Your task to perform on an android device: toggle notification dots Image 0: 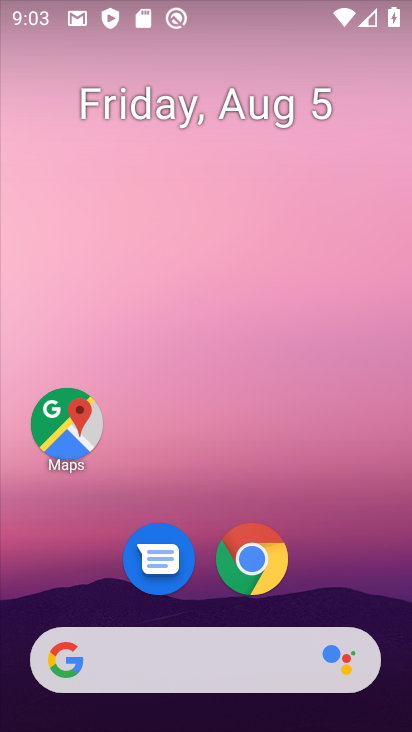
Step 0: drag from (169, 600) to (186, 115)
Your task to perform on an android device: toggle notification dots Image 1: 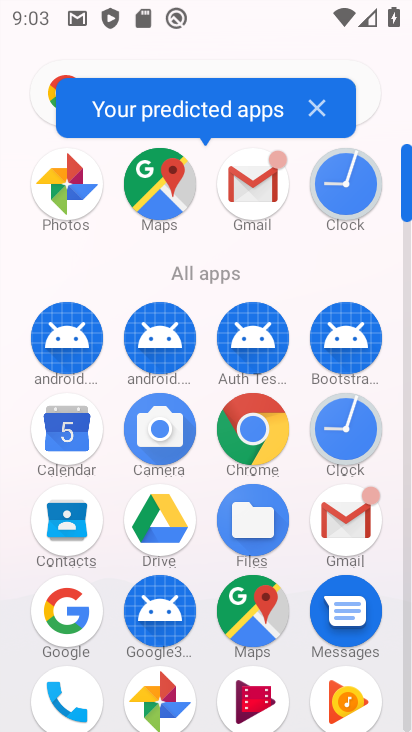
Step 1: drag from (234, 560) to (267, 217)
Your task to perform on an android device: toggle notification dots Image 2: 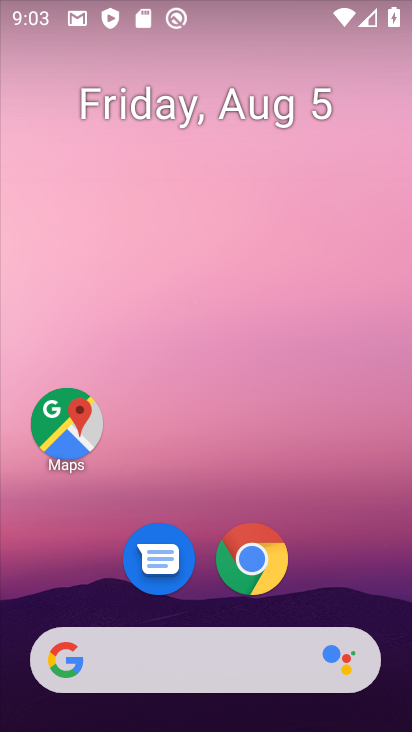
Step 2: drag from (228, 541) to (260, 106)
Your task to perform on an android device: toggle notification dots Image 3: 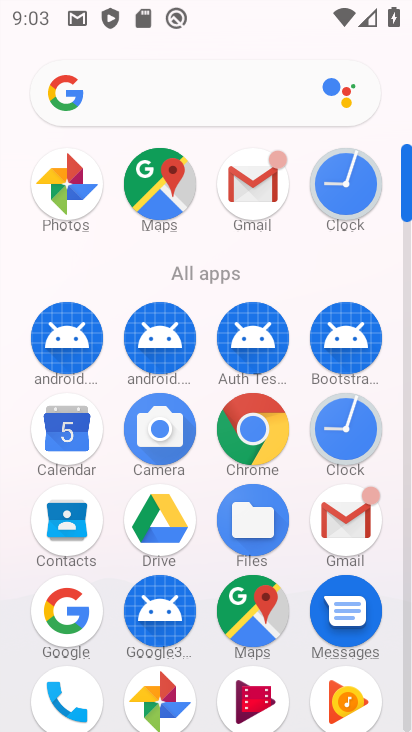
Step 3: drag from (242, 544) to (261, 162)
Your task to perform on an android device: toggle notification dots Image 4: 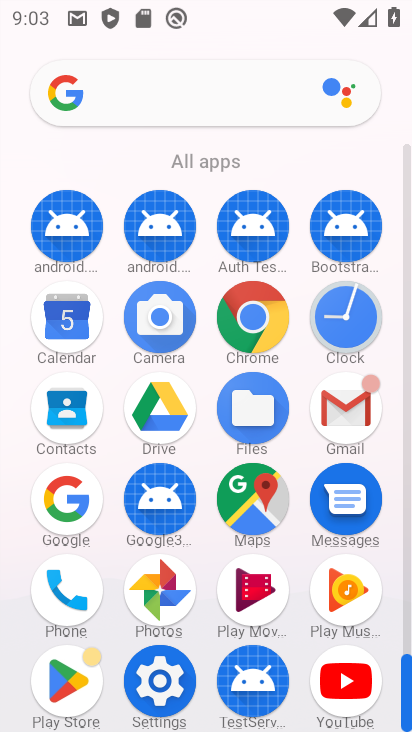
Step 4: click (158, 683)
Your task to perform on an android device: toggle notification dots Image 5: 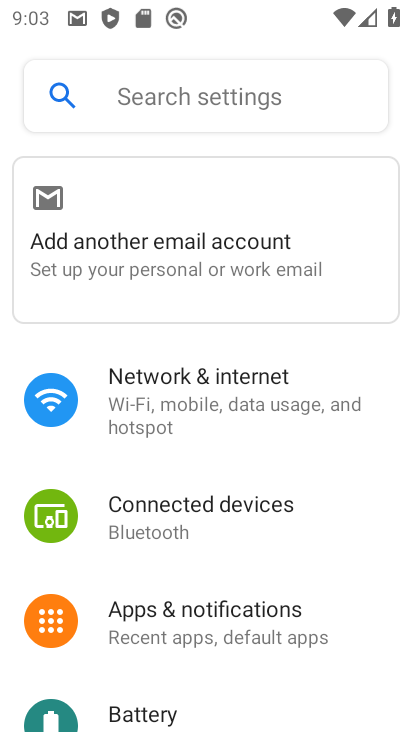
Step 5: click (235, 620)
Your task to perform on an android device: toggle notification dots Image 6: 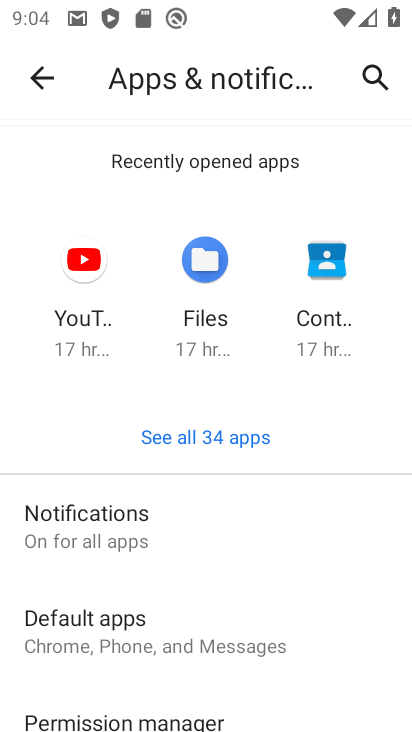
Step 6: click (162, 527)
Your task to perform on an android device: toggle notification dots Image 7: 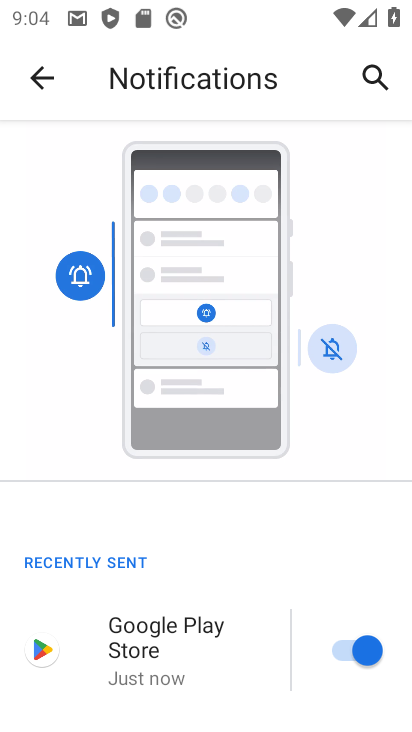
Step 7: drag from (157, 493) to (277, 41)
Your task to perform on an android device: toggle notification dots Image 8: 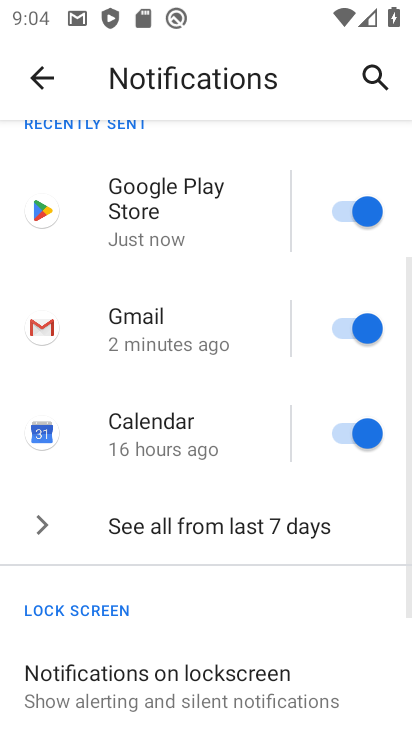
Step 8: drag from (212, 616) to (247, 77)
Your task to perform on an android device: toggle notification dots Image 9: 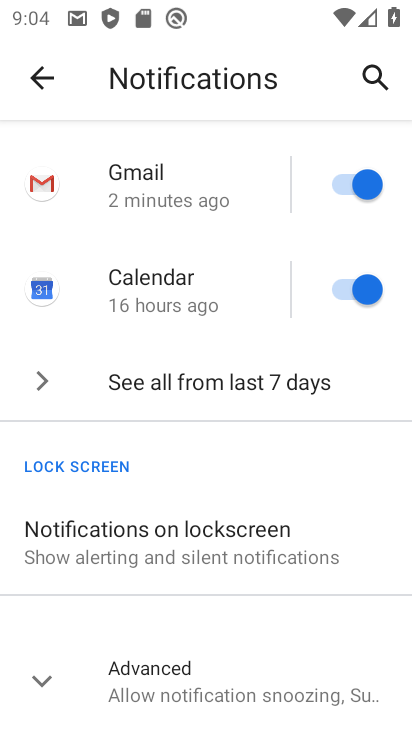
Step 9: click (184, 679)
Your task to perform on an android device: toggle notification dots Image 10: 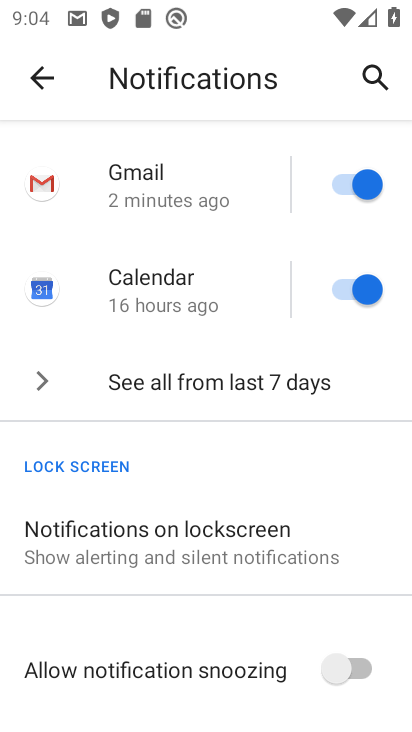
Step 10: drag from (124, 488) to (193, 72)
Your task to perform on an android device: toggle notification dots Image 11: 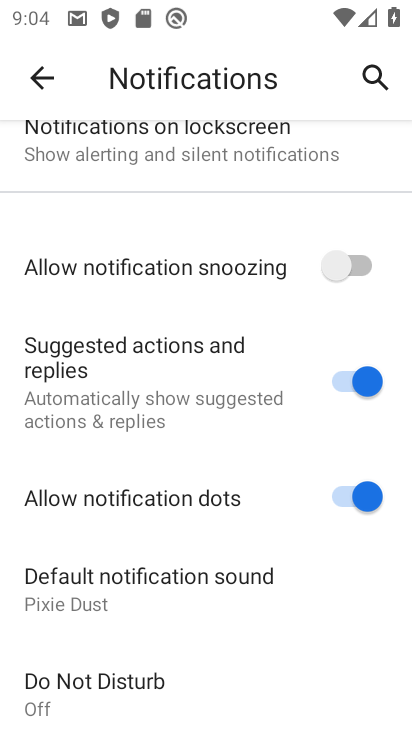
Step 11: click (256, 497)
Your task to perform on an android device: toggle notification dots Image 12: 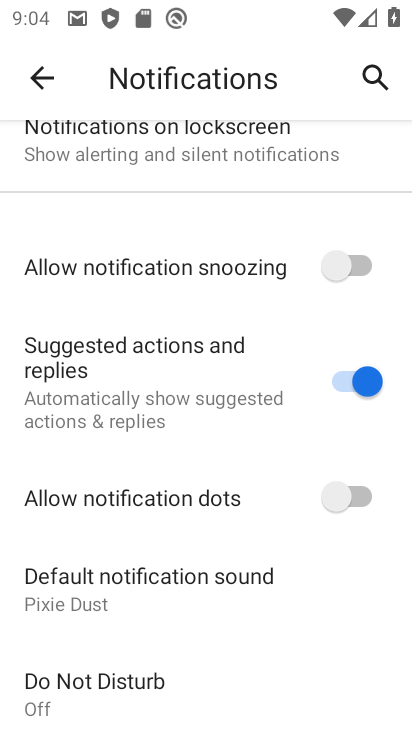
Step 12: task complete